Your task to perform on an android device: Toggle the flashlight Image 0: 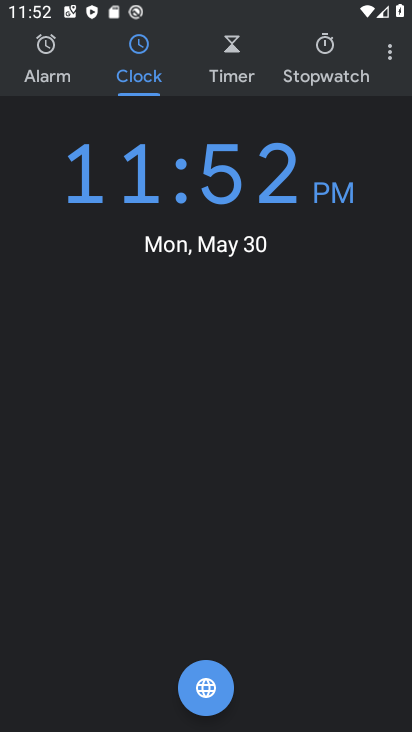
Step 0: press home button
Your task to perform on an android device: Toggle the flashlight Image 1: 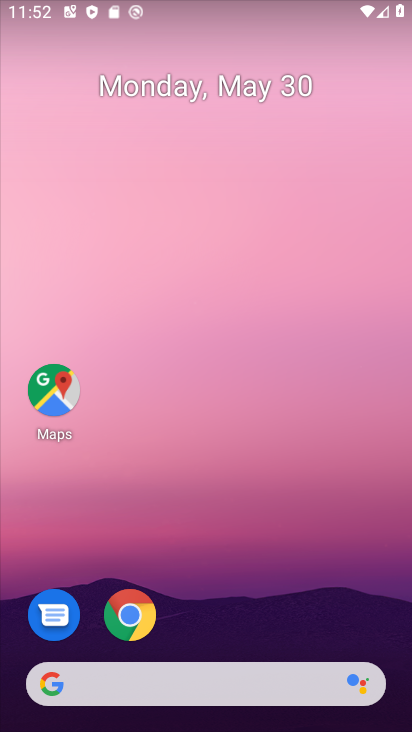
Step 1: drag from (244, 1) to (231, 366)
Your task to perform on an android device: Toggle the flashlight Image 2: 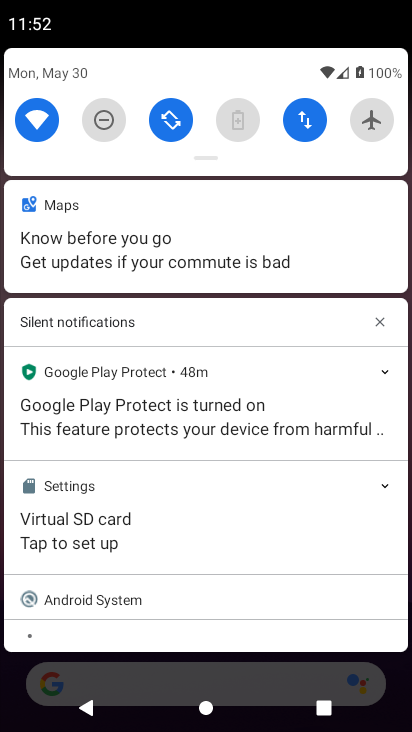
Step 2: drag from (200, 49) to (201, 336)
Your task to perform on an android device: Toggle the flashlight Image 3: 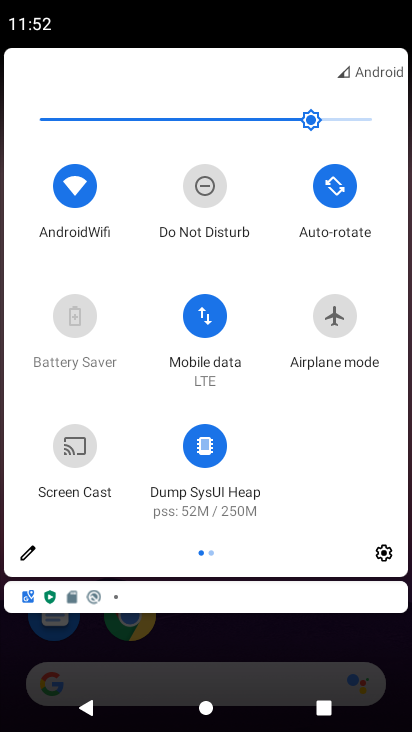
Step 3: click (14, 553)
Your task to perform on an android device: Toggle the flashlight Image 4: 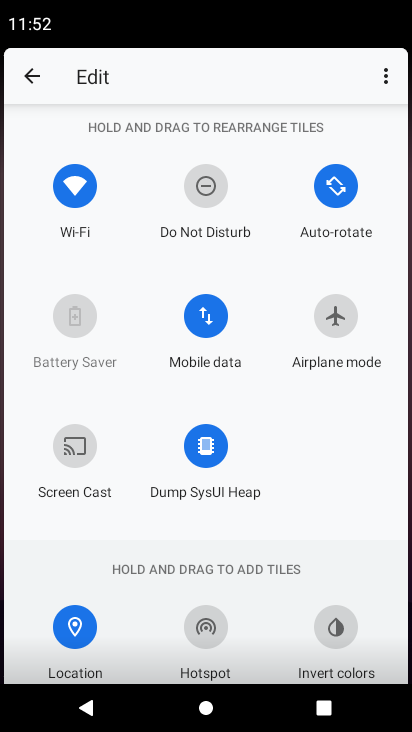
Step 4: task complete